Your task to perform on an android device: open app "Adobe Acrobat Reader" (install if not already installed) Image 0: 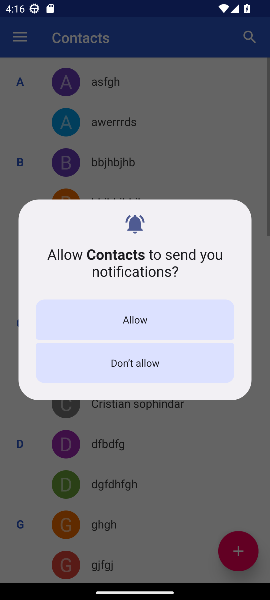
Step 0: click (159, 365)
Your task to perform on an android device: open app "Adobe Acrobat Reader" (install if not already installed) Image 1: 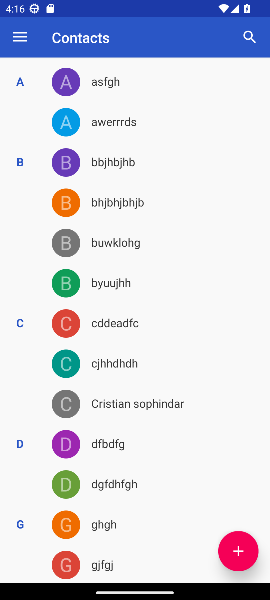
Step 1: press home button
Your task to perform on an android device: open app "Adobe Acrobat Reader" (install if not already installed) Image 2: 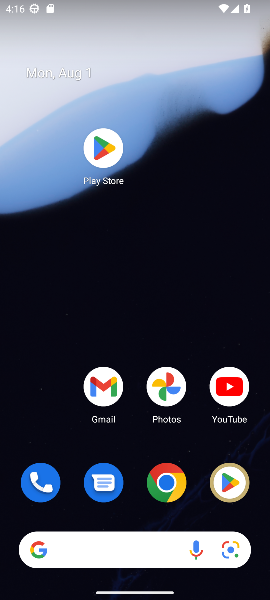
Step 2: click (104, 154)
Your task to perform on an android device: open app "Adobe Acrobat Reader" (install if not already installed) Image 3: 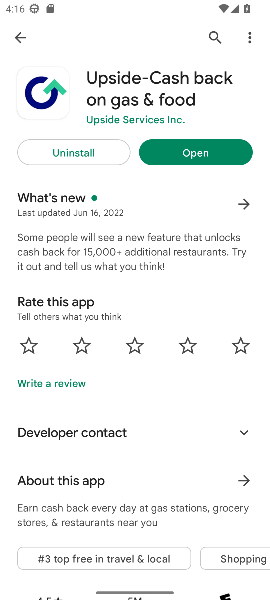
Step 3: click (209, 38)
Your task to perform on an android device: open app "Adobe Acrobat Reader" (install if not already installed) Image 4: 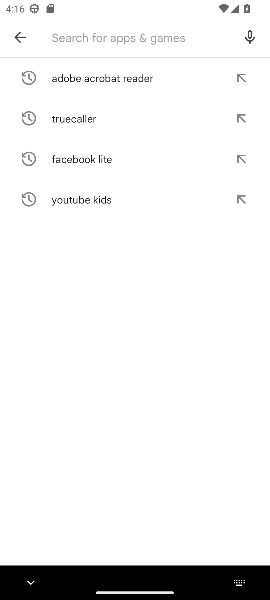
Step 4: type "Adobe Acrobat Reader"
Your task to perform on an android device: open app "Adobe Acrobat Reader" (install if not already installed) Image 5: 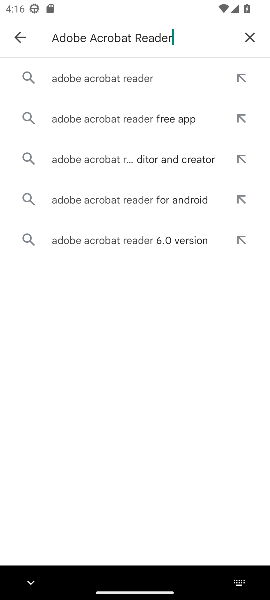
Step 5: click (119, 80)
Your task to perform on an android device: open app "Adobe Acrobat Reader" (install if not already installed) Image 6: 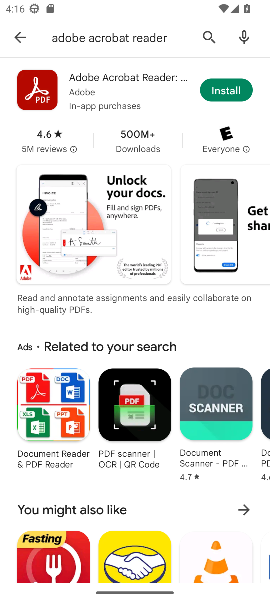
Step 6: click (210, 90)
Your task to perform on an android device: open app "Adobe Acrobat Reader" (install if not already installed) Image 7: 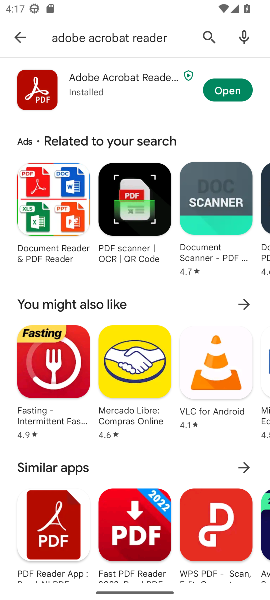
Step 7: click (214, 90)
Your task to perform on an android device: open app "Adobe Acrobat Reader" (install if not already installed) Image 8: 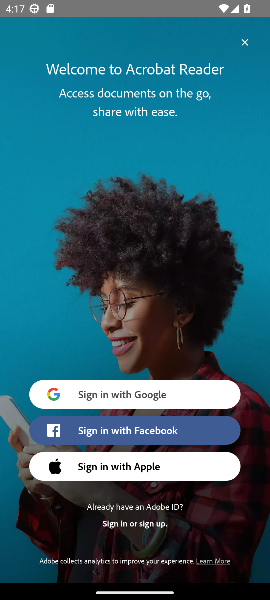
Step 8: task complete